Your task to perform on an android device: Open the calendar and show me this week's events? Image 0: 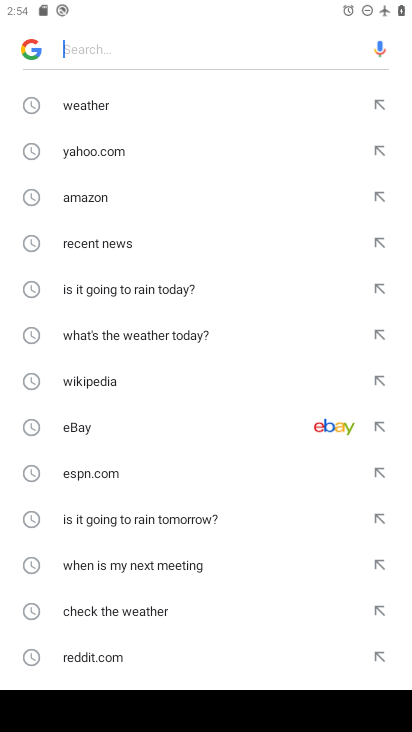
Step 0: press home button
Your task to perform on an android device: Open the calendar and show me this week's events? Image 1: 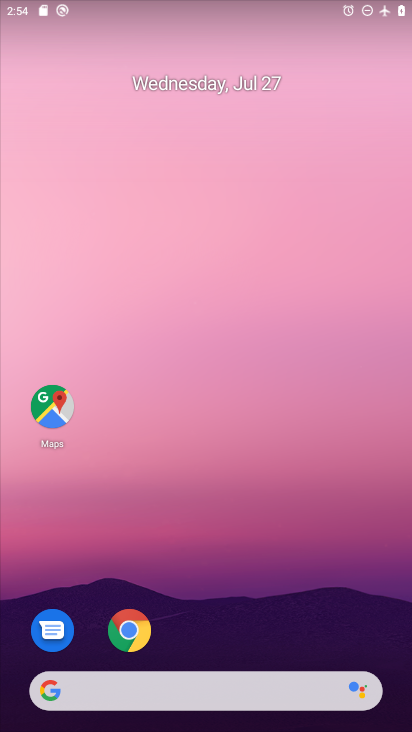
Step 1: drag from (374, 637) to (335, 100)
Your task to perform on an android device: Open the calendar and show me this week's events? Image 2: 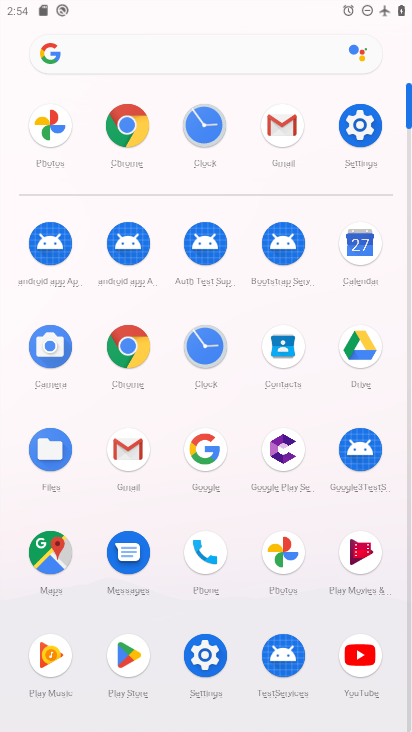
Step 2: click (359, 246)
Your task to perform on an android device: Open the calendar and show me this week's events? Image 3: 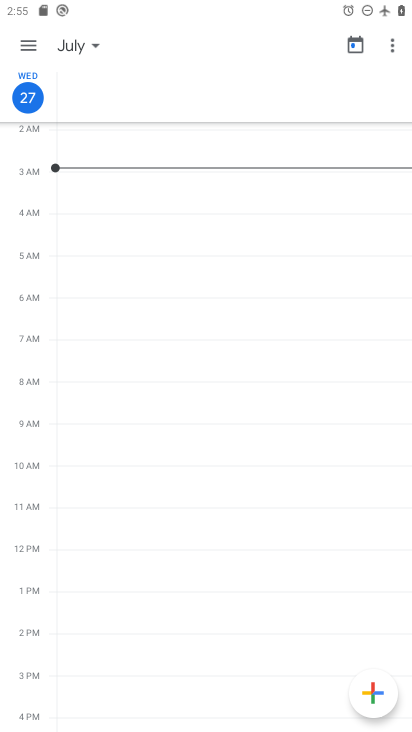
Step 3: click (30, 40)
Your task to perform on an android device: Open the calendar and show me this week's events? Image 4: 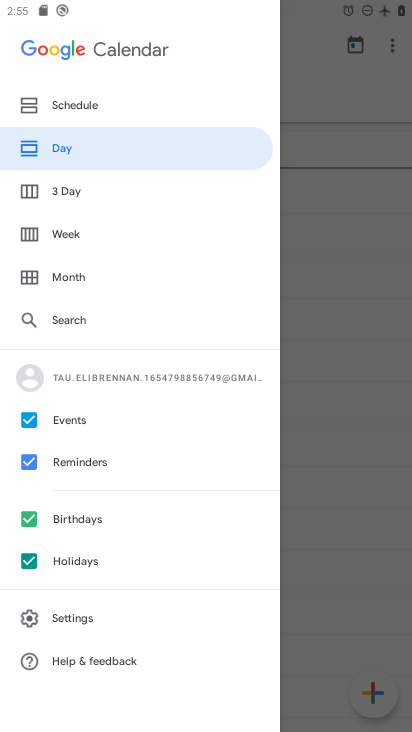
Step 4: click (66, 231)
Your task to perform on an android device: Open the calendar and show me this week's events? Image 5: 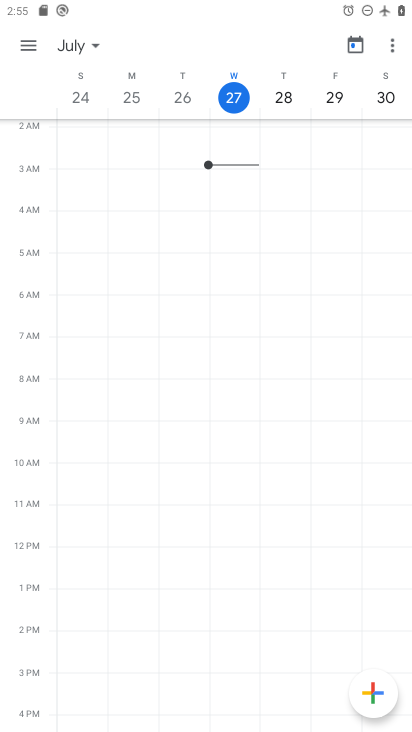
Step 5: task complete